Your task to perform on an android device: Do I have any events today? Image 0: 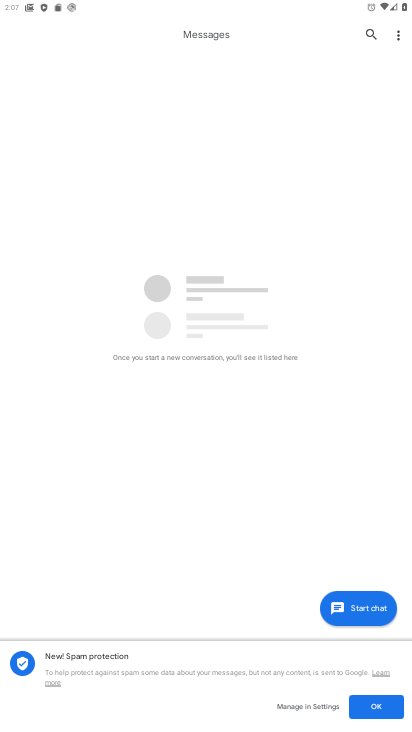
Step 0: press home button
Your task to perform on an android device: Do I have any events today? Image 1: 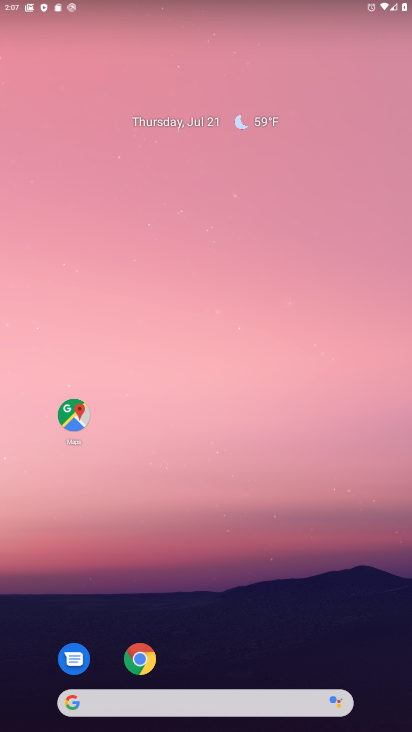
Step 1: drag from (289, 624) to (311, 63)
Your task to perform on an android device: Do I have any events today? Image 2: 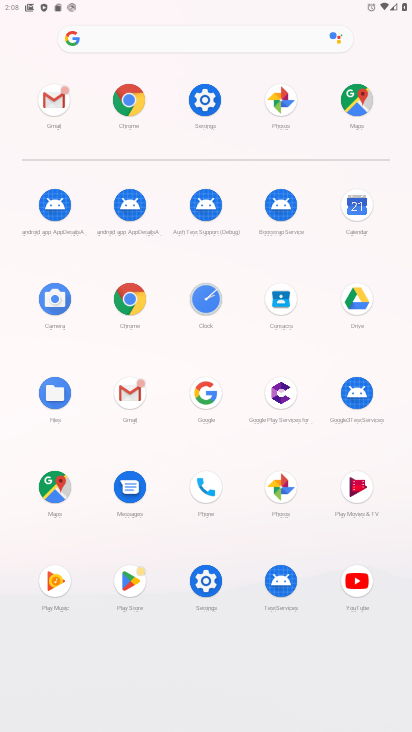
Step 2: click (357, 200)
Your task to perform on an android device: Do I have any events today? Image 3: 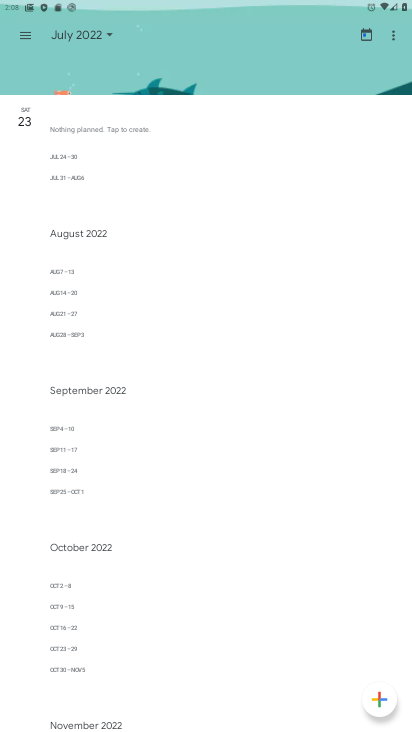
Step 3: click (72, 30)
Your task to perform on an android device: Do I have any events today? Image 4: 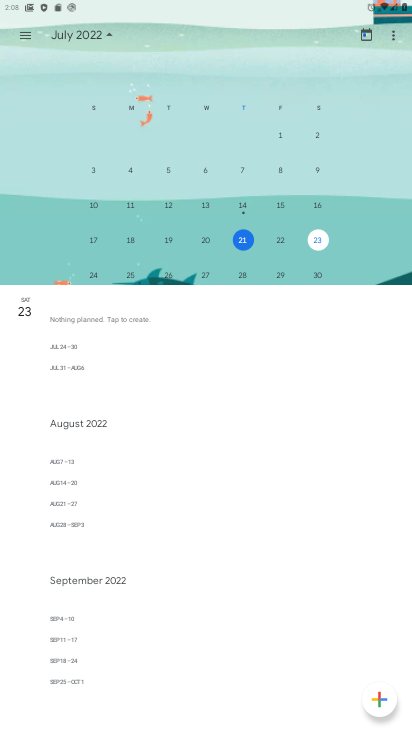
Step 4: click (248, 236)
Your task to perform on an android device: Do I have any events today? Image 5: 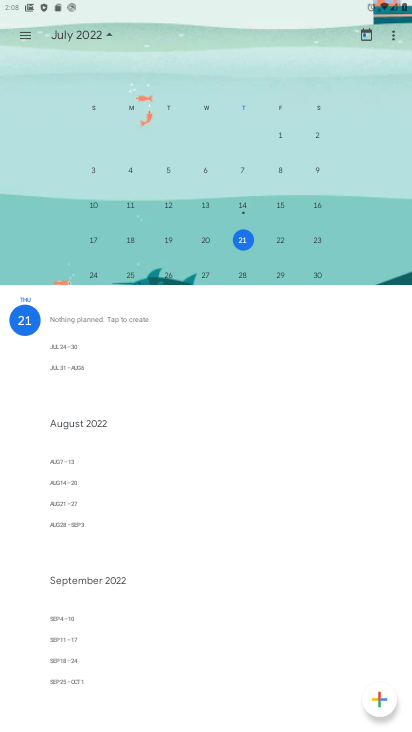
Step 5: drag from (247, 378) to (305, 18)
Your task to perform on an android device: Do I have any events today? Image 6: 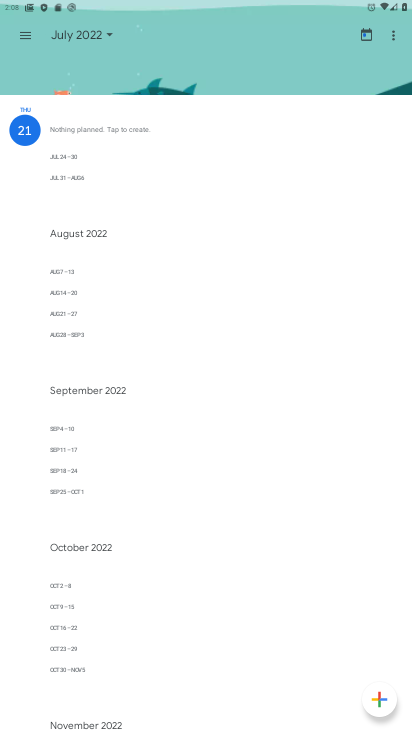
Step 6: click (31, 127)
Your task to perform on an android device: Do I have any events today? Image 7: 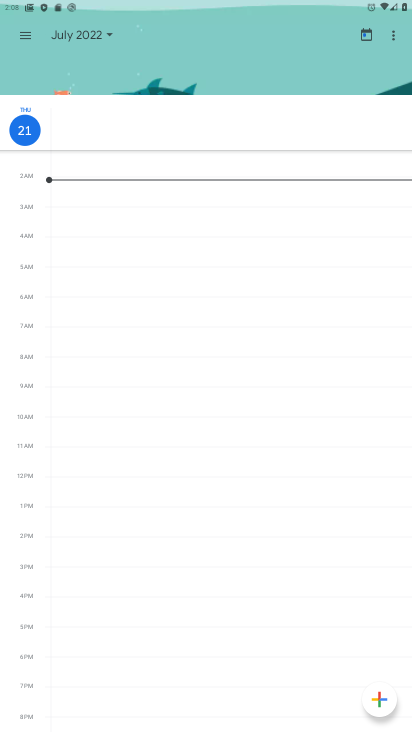
Step 7: task complete